Your task to perform on an android device: open chrome privacy settings Image 0: 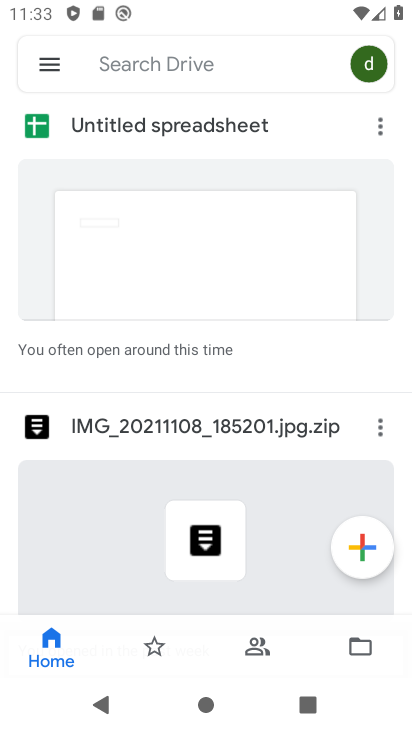
Step 0: press home button
Your task to perform on an android device: open chrome privacy settings Image 1: 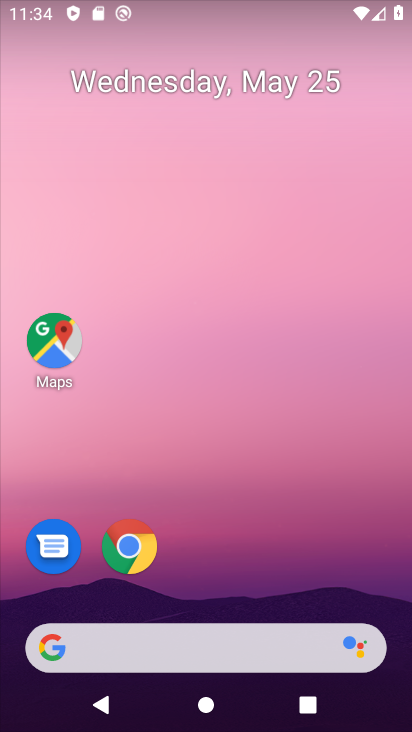
Step 1: click (126, 546)
Your task to perform on an android device: open chrome privacy settings Image 2: 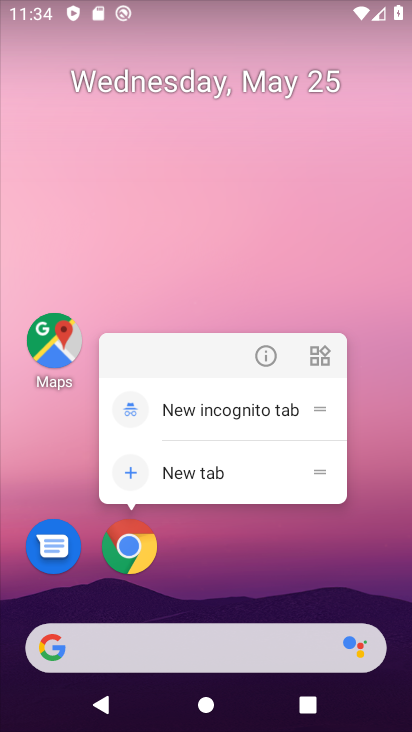
Step 2: click (126, 546)
Your task to perform on an android device: open chrome privacy settings Image 3: 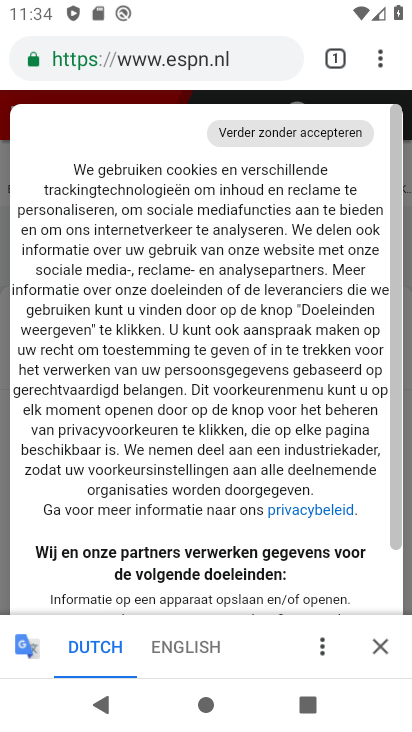
Step 3: click (369, 60)
Your task to perform on an android device: open chrome privacy settings Image 4: 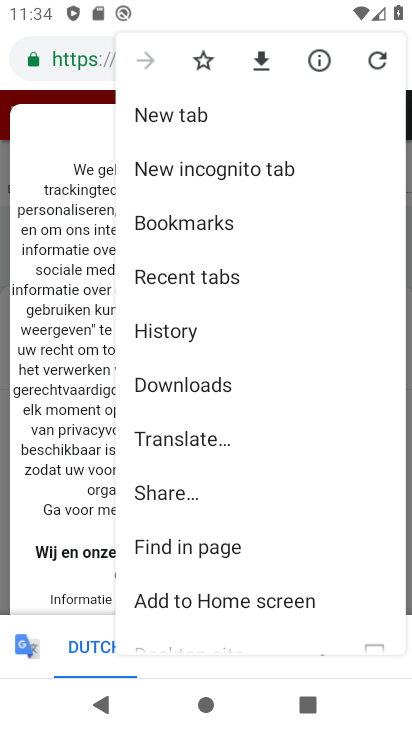
Step 4: drag from (167, 591) to (196, 222)
Your task to perform on an android device: open chrome privacy settings Image 5: 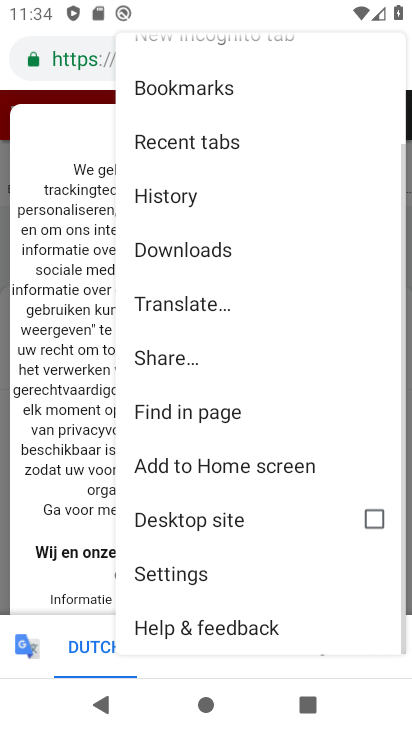
Step 5: click (188, 561)
Your task to perform on an android device: open chrome privacy settings Image 6: 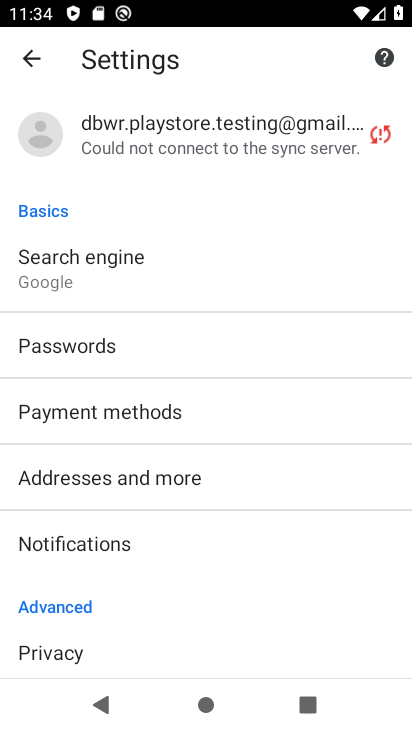
Step 6: click (86, 642)
Your task to perform on an android device: open chrome privacy settings Image 7: 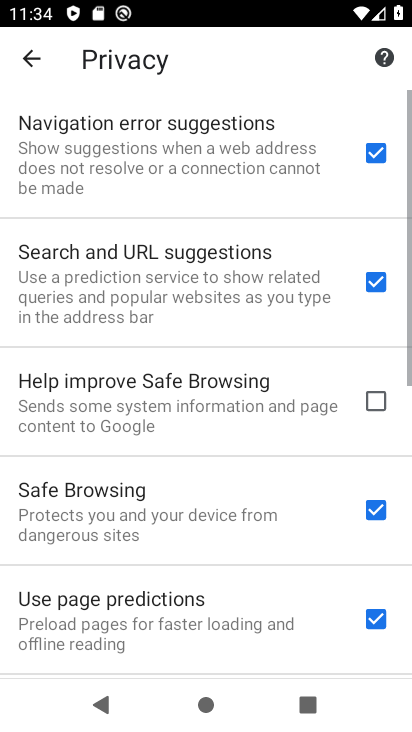
Step 7: task complete